Your task to perform on an android device: Go to Wikipedia Image 0: 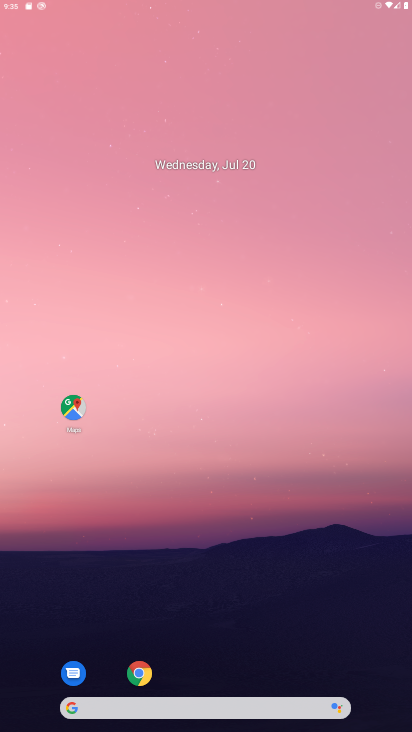
Step 0: drag from (215, 544) to (270, 170)
Your task to perform on an android device: Go to Wikipedia Image 1: 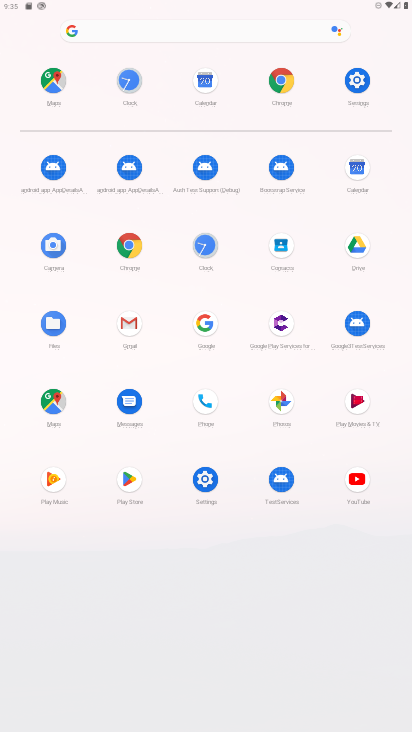
Step 1: click (217, 24)
Your task to perform on an android device: Go to Wikipedia Image 2: 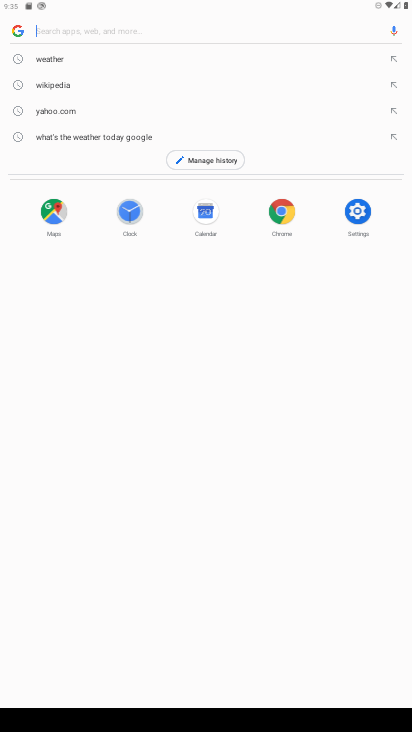
Step 2: click (59, 84)
Your task to perform on an android device: Go to Wikipedia Image 3: 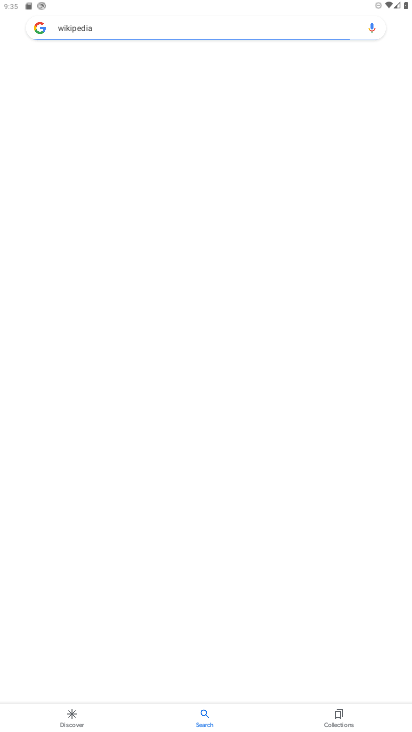
Step 3: drag from (254, 514) to (256, 206)
Your task to perform on an android device: Go to Wikipedia Image 4: 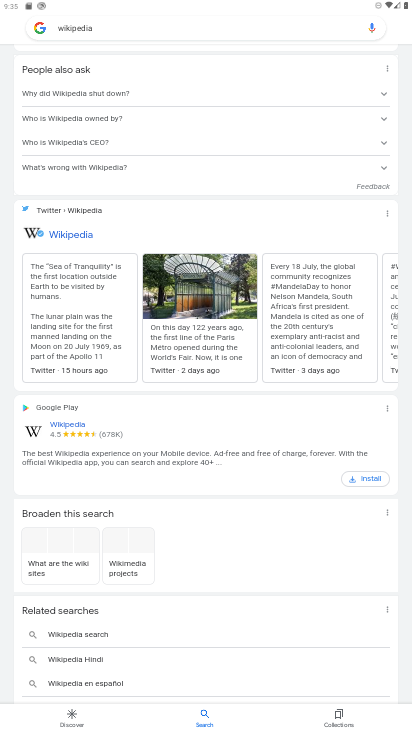
Step 4: drag from (233, 372) to (254, 178)
Your task to perform on an android device: Go to Wikipedia Image 5: 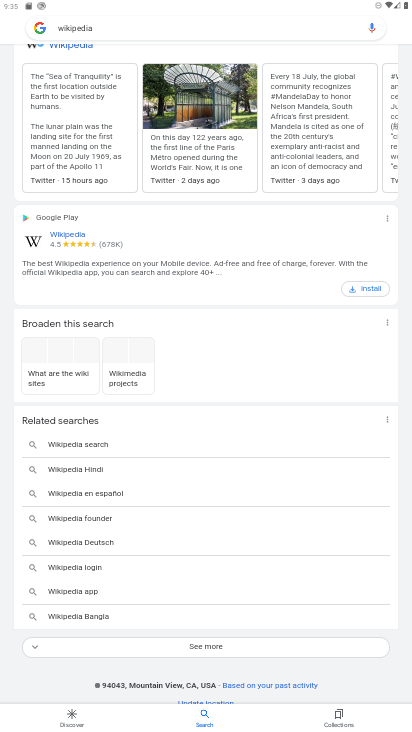
Step 5: drag from (258, 125) to (259, 721)
Your task to perform on an android device: Go to Wikipedia Image 6: 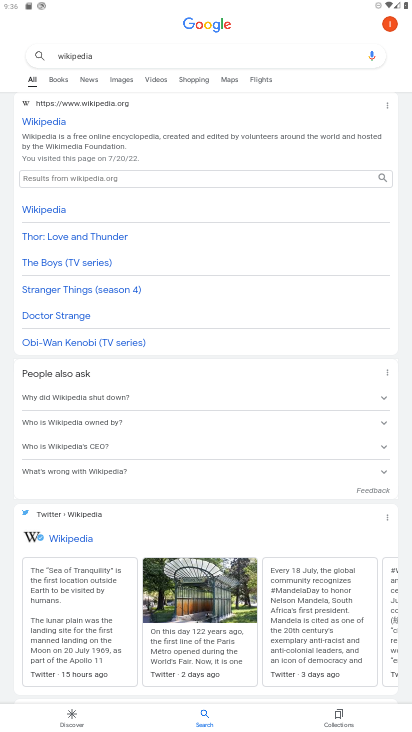
Step 6: drag from (346, 515) to (342, 183)
Your task to perform on an android device: Go to Wikipedia Image 7: 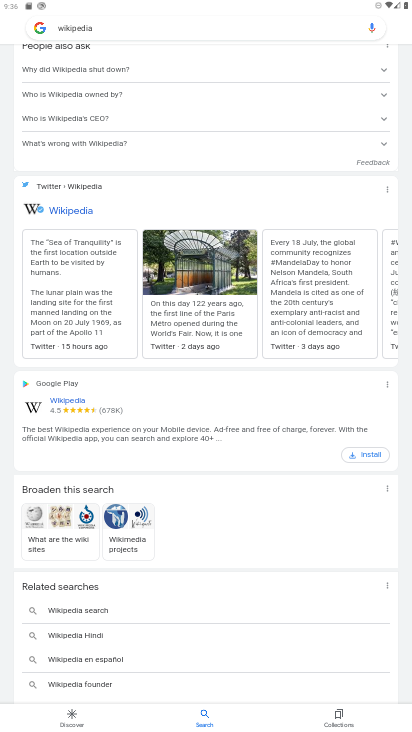
Step 7: drag from (269, 137) to (329, 731)
Your task to perform on an android device: Go to Wikipedia Image 8: 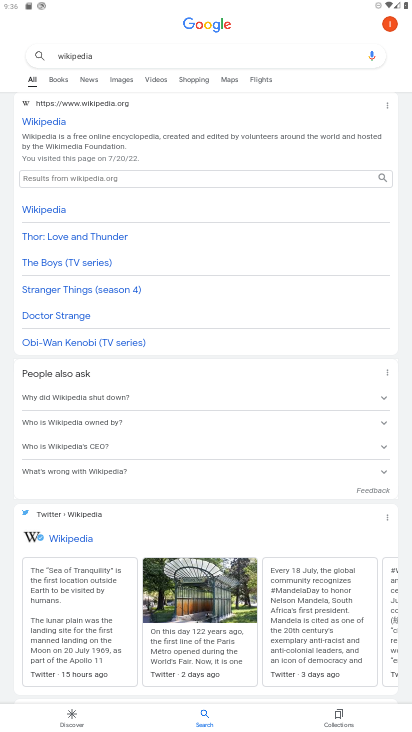
Step 8: click (26, 116)
Your task to perform on an android device: Go to Wikipedia Image 9: 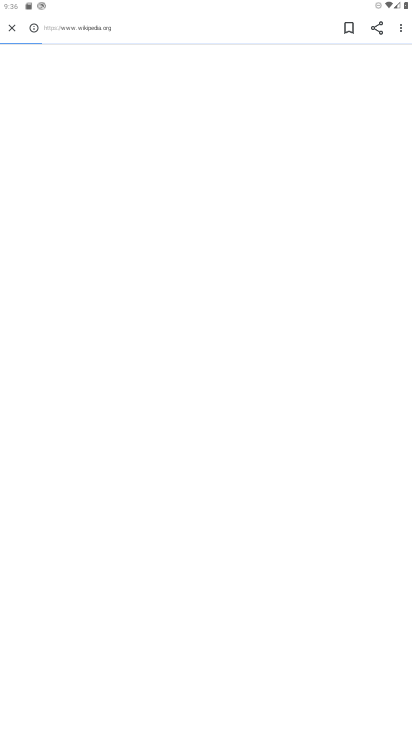
Step 9: task complete